Your task to perform on an android device: open app "Indeed Job Search" (install if not already installed), go to login, and select forgot password Image 0: 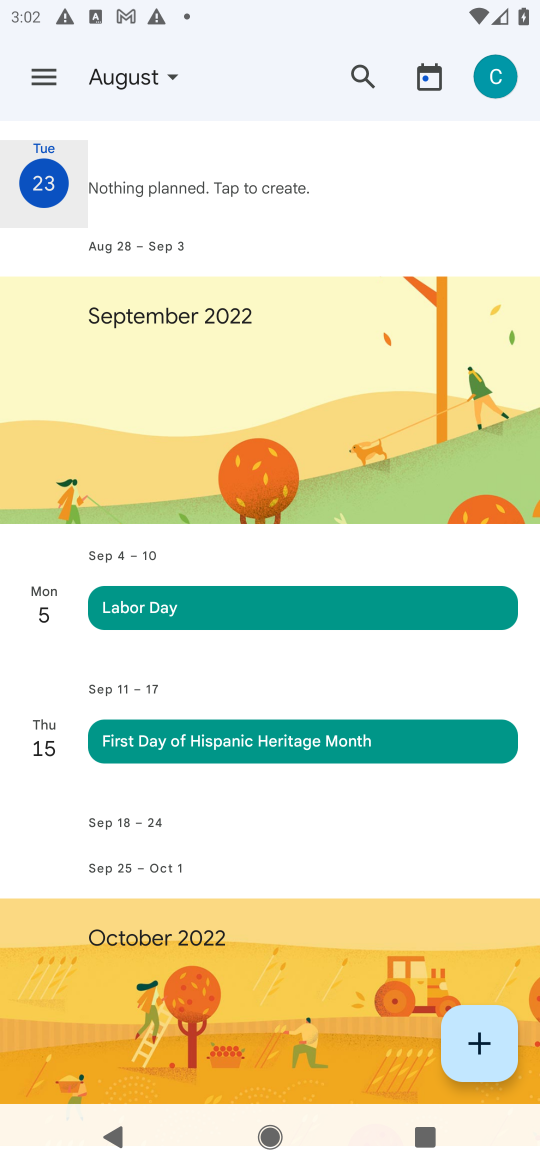
Step 0: press home button
Your task to perform on an android device: open app "Indeed Job Search" (install if not already installed), go to login, and select forgot password Image 1: 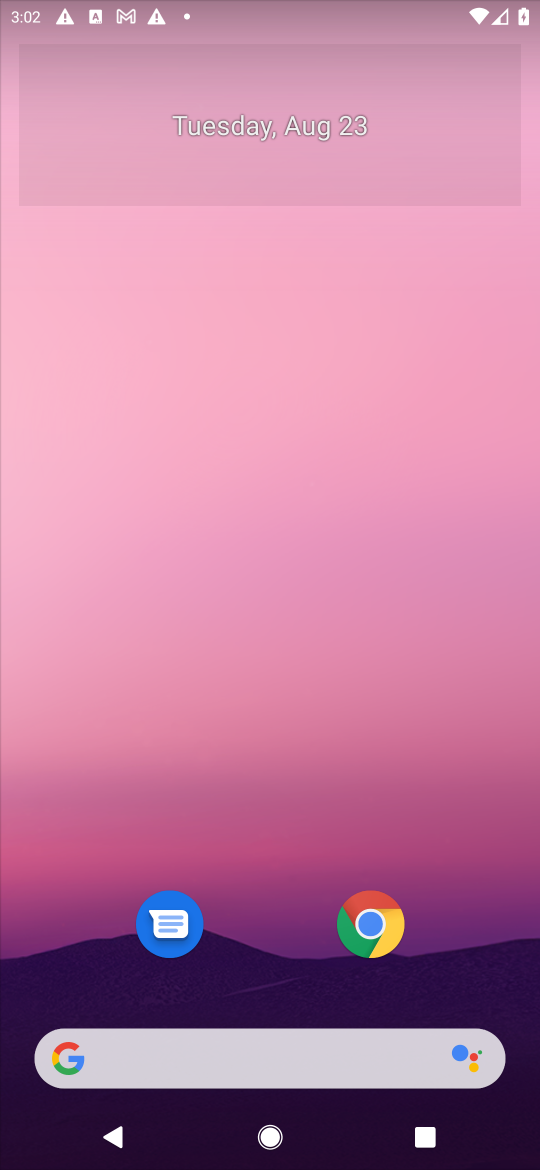
Step 1: drag from (483, 873) to (401, 91)
Your task to perform on an android device: open app "Indeed Job Search" (install if not already installed), go to login, and select forgot password Image 2: 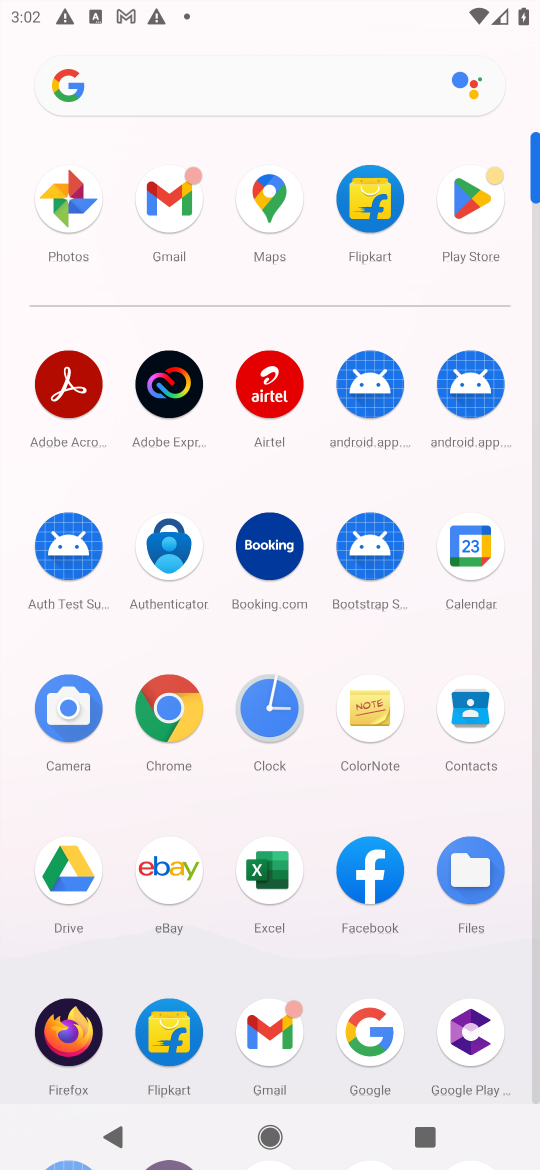
Step 2: click (467, 193)
Your task to perform on an android device: open app "Indeed Job Search" (install if not already installed), go to login, and select forgot password Image 3: 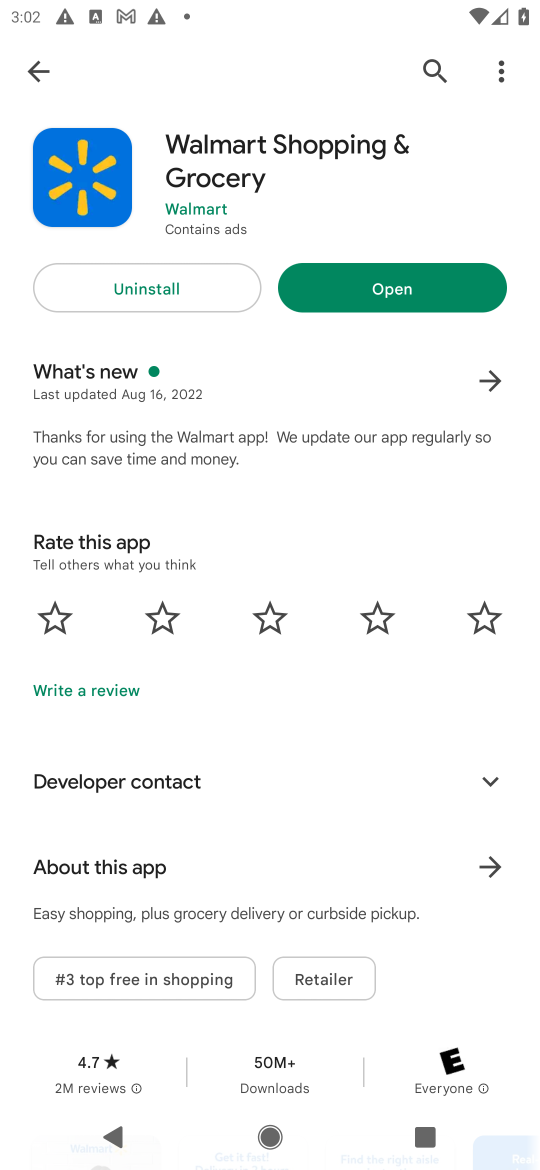
Step 3: press back button
Your task to perform on an android device: open app "Indeed Job Search" (install if not already installed), go to login, and select forgot password Image 4: 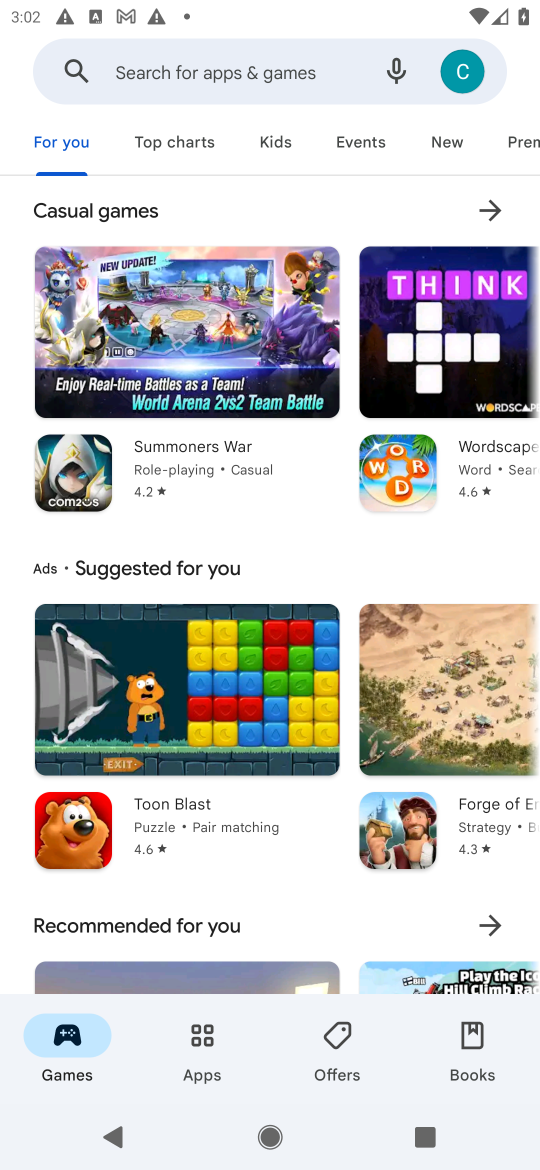
Step 4: click (172, 70)
Your task to perform on an android device: open app "Indeed Job Search" (install if not already installed), go to login, and select forgot password Image 5: 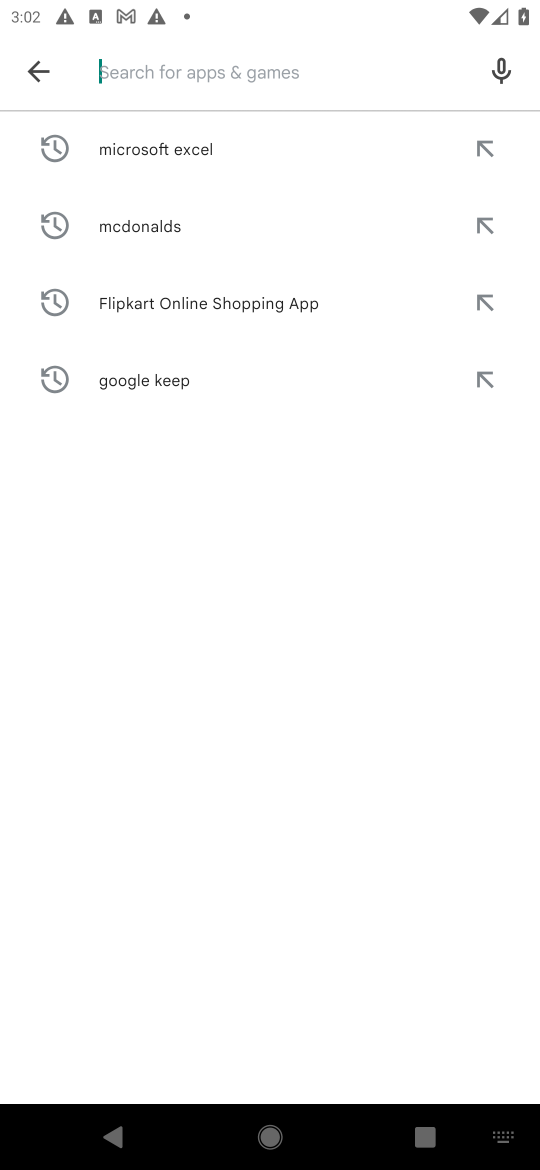
Step 5: type "Indeed Job Search"
Your task to perform on an android device: open app "Indeed Job Search" (install if not already installed), go to login, and select forgot password Image 6: 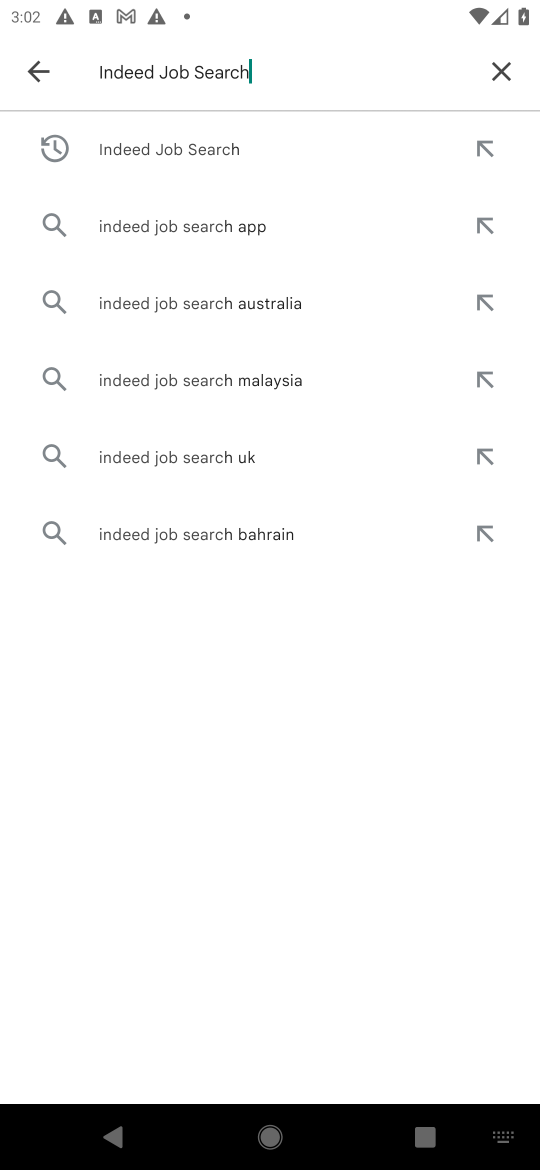
Step 6: press enter
Your task to perform on an android device: open app "Indeed Job Search" (install if not already installed), go to login, and select forgot password Image 7: 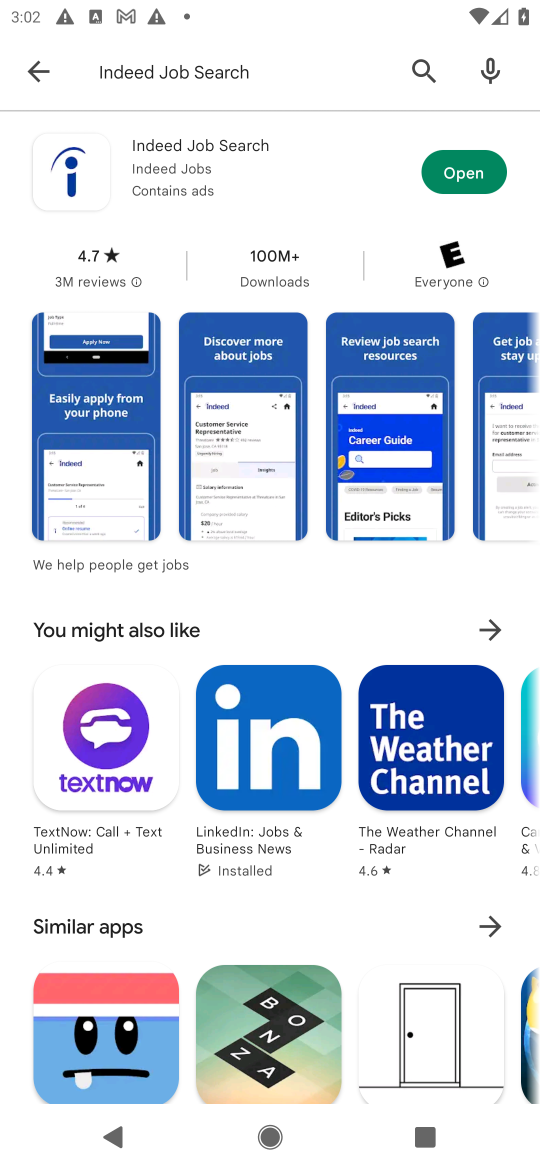
Step 7: click (458, 175)
Your task to perform on an android device: open app "Indeed Job Search" (install if not already installed), go to login, and select forgot password Image 8: 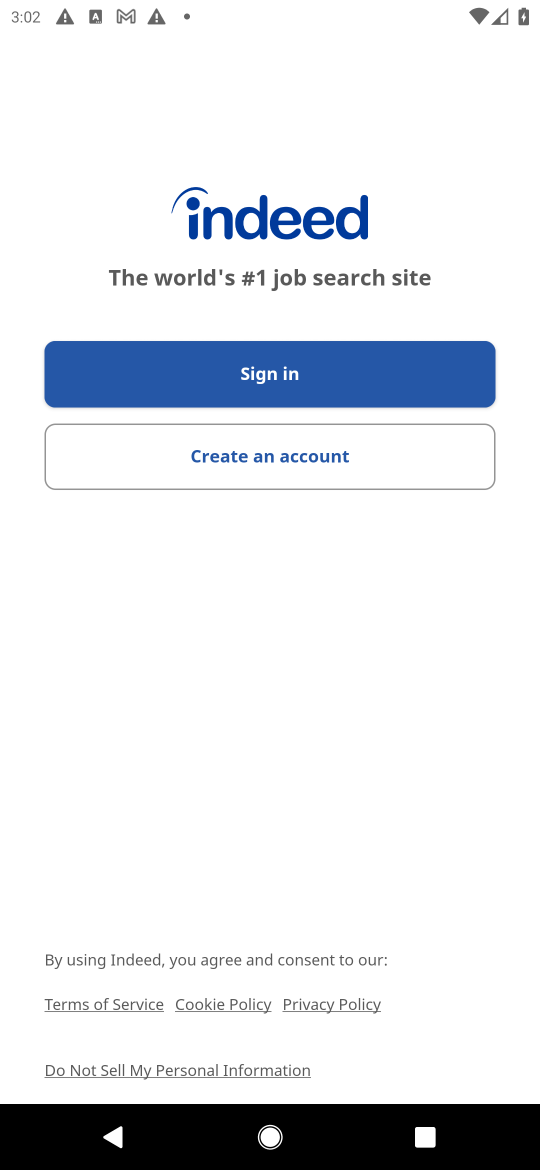
Step 8: click (363, 381)
Your task to perform on an android device: open app "Indeed Job Search" (install if not already installed), go to login, and select forgot password Image 9: 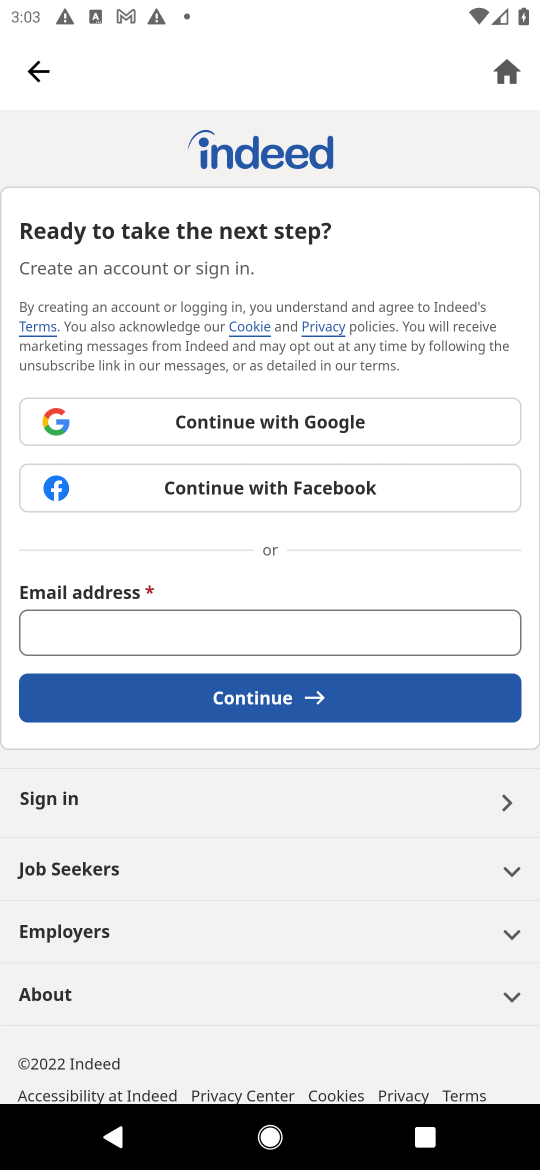
Step 9: task complete